Your task to perform on an android device: Search for Italian restaurants on Maps Image 0: 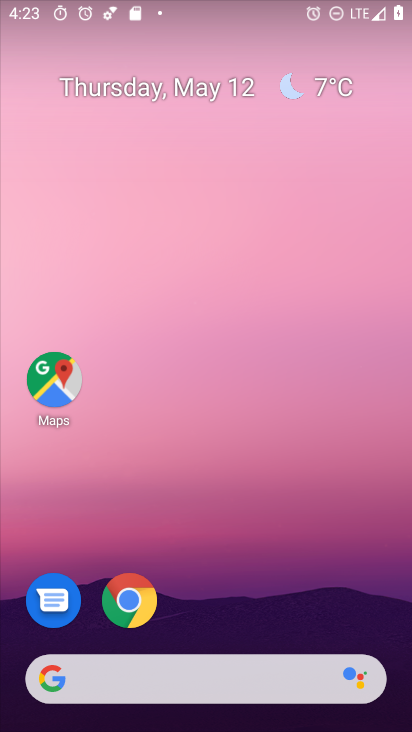
Step 0: drag from (191, 718) to (192, 162)
Your task to perform on an android device: Search for Italian restaurants on Maps Image 1: 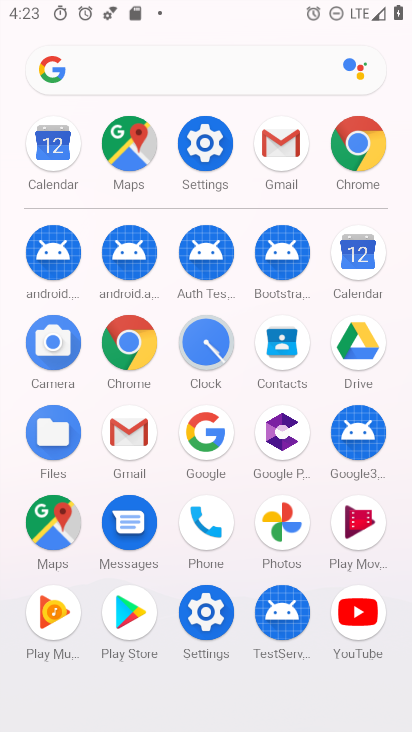
Step 1: click (52, 513)
Your task to perform on an android device: Search for Italian restaurants on Maps Image 2: 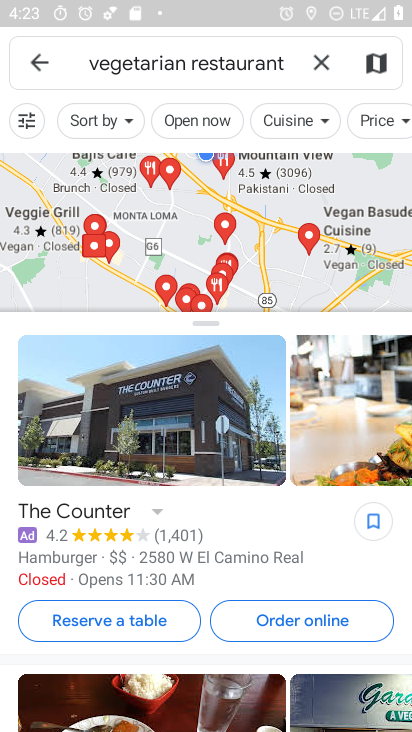
Step 2: click (320, 63)
Your task to perform on an android device: Search for Italian restaurants on Maps Image 3: 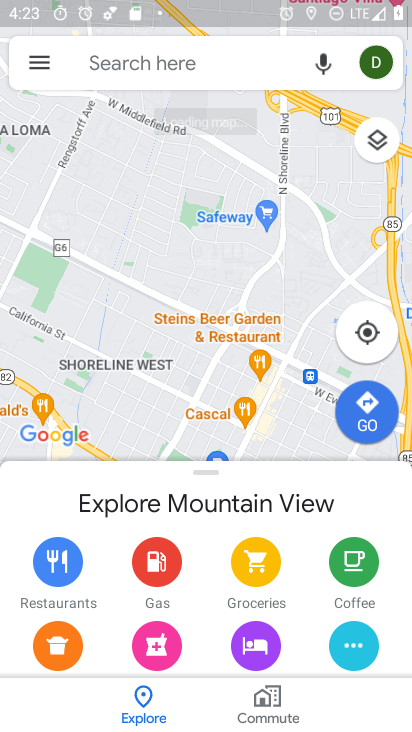
Step 3: click (235, 61)
Your task to perform on an android device: Search for Italian restaurants on Maps Image 4: 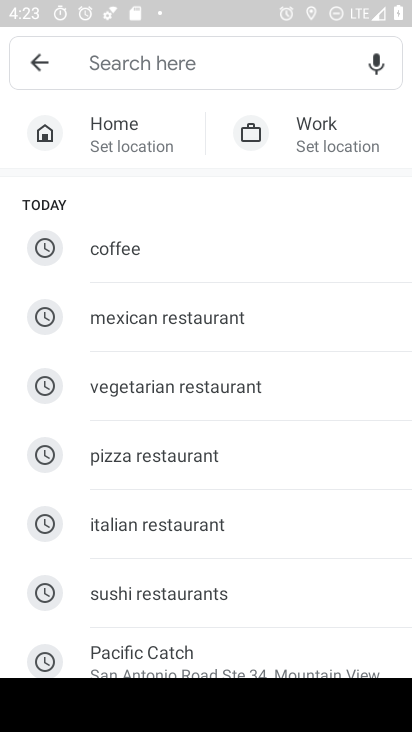
Step 4: type "italian restaurants"
Your task to perform on an android device: Search for Italian restaurants on Maps Image 5: 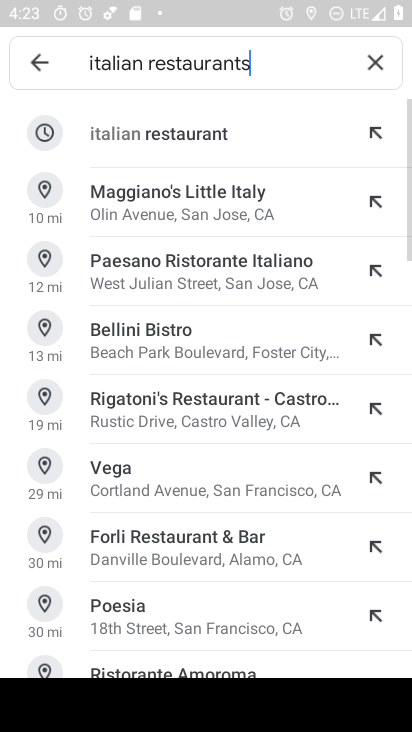
Step 5: click (155, 134)
Your task to perform on an android device: Search for Italian restaurants on Maps Image 6: 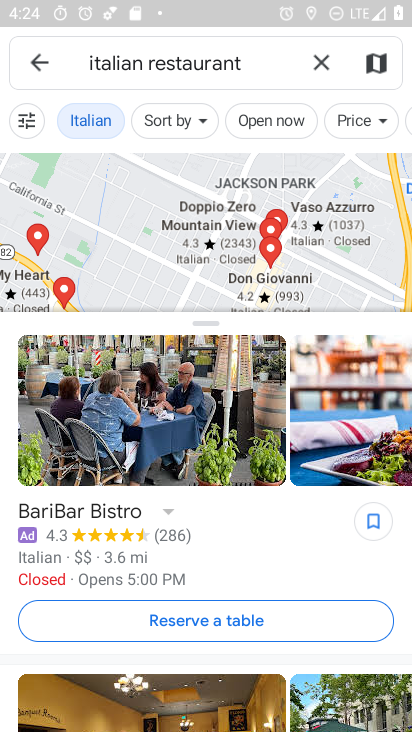
Step 6: task complete